Your task to perform on an android device: empty trash in the gmail app Image 0: 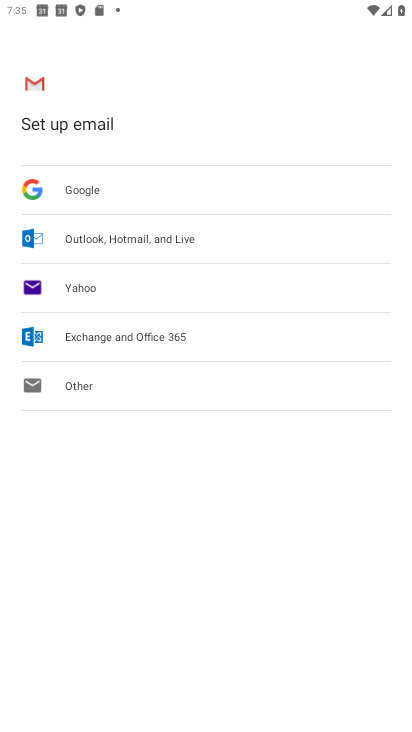
Step 0: press home button
Your task to perform on an android device: empty trash in the gmail app Image 1: 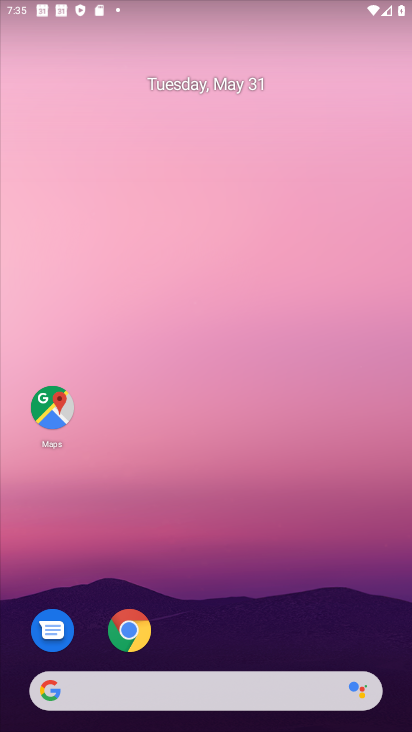
Step 1: drag from (205, 594) to (187, 152)
Your task to perform on an android device: empty trash in the gmail app Image 2: 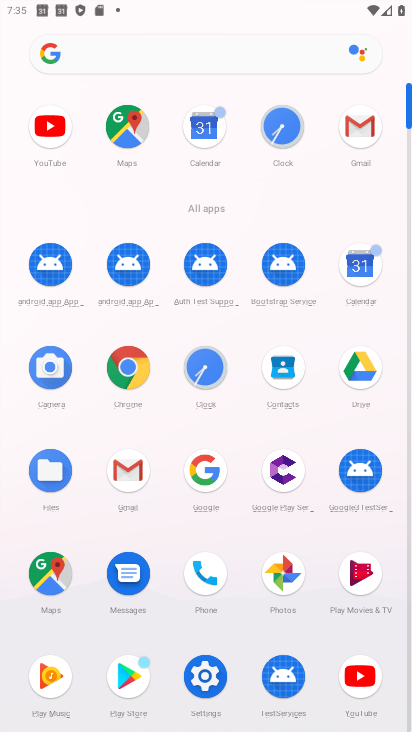
Step 2: click (130, 468)
Your task to perform on an android device: empty trash in the gmail app Image 3: 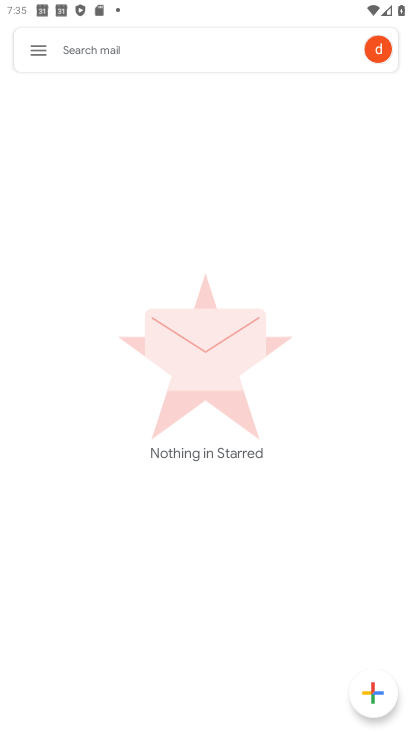
Step 3: click (35, 47)
Your task to perform on an android device: empty trash in the gmail app Image 4: 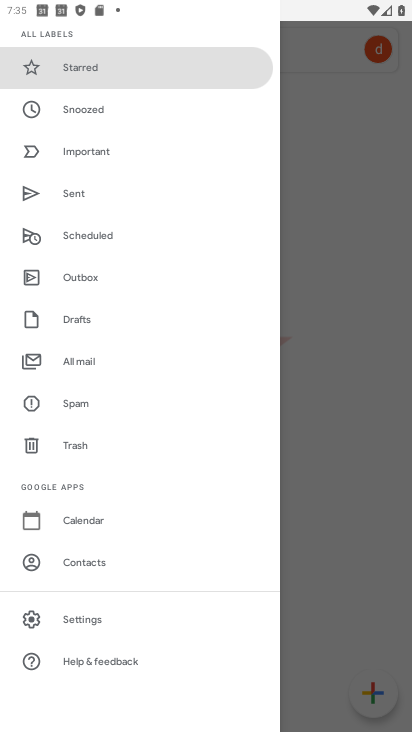
Step 4: click (74, 441)
Your task to perform on an android device: empty trash in the gmail app Image 5: 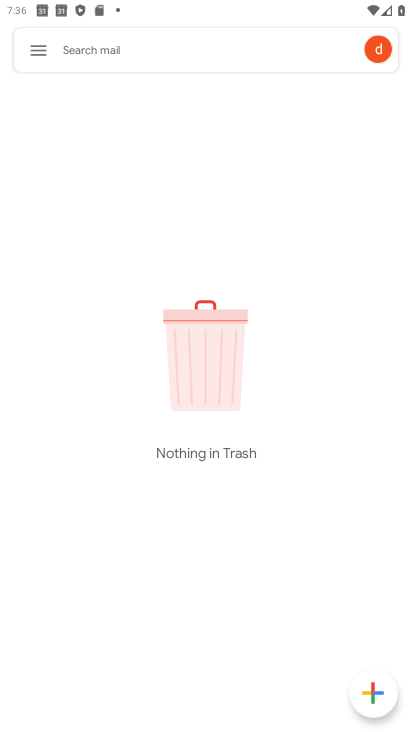
Step 5: task complete